Your task to perform on an android device: change the clock display to digital Image 0: 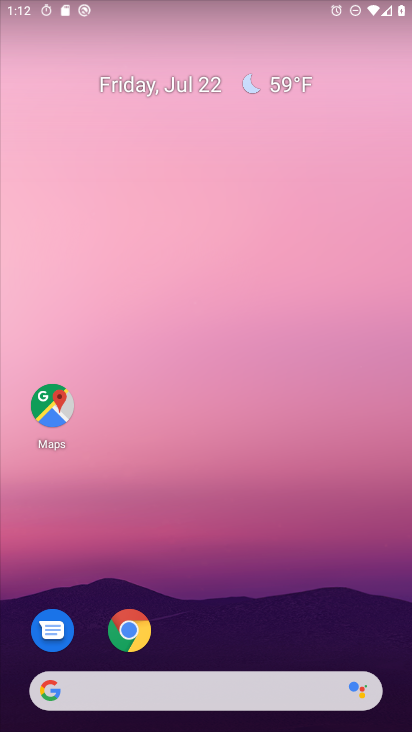
Step 0: press home button
Your task to perform on an android device: change the clock display to digital Image 1: 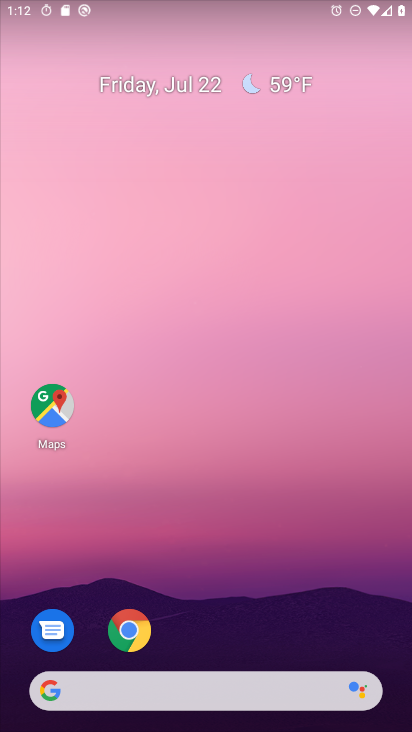
Step 1: drag from (250, 644) to (275, 34)
Your task to perform on an android device: change the clock display to digital Image 2: 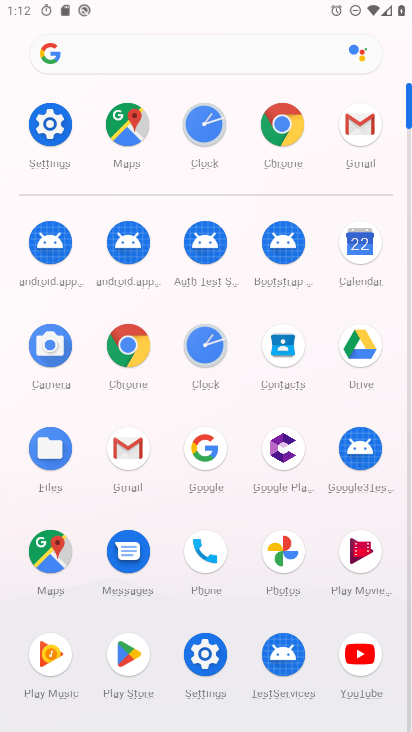
Step 2: click (206, 136)
Your task to perform on an android device: change the clock display to digital Image 3: 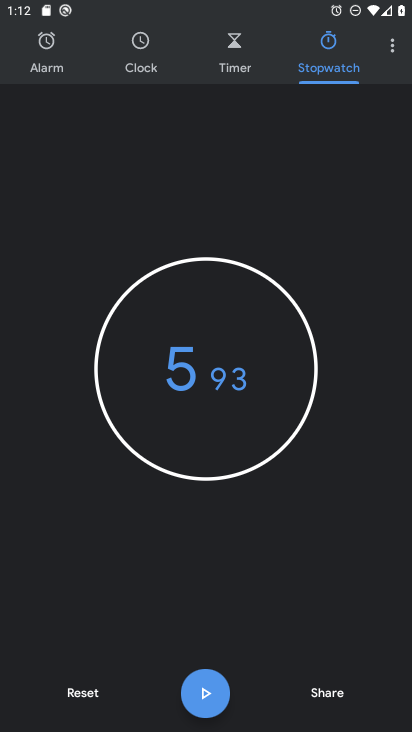
Step 3: click (397, 47)
Your task to perform on an android device: change the clock display to digital Image 4: 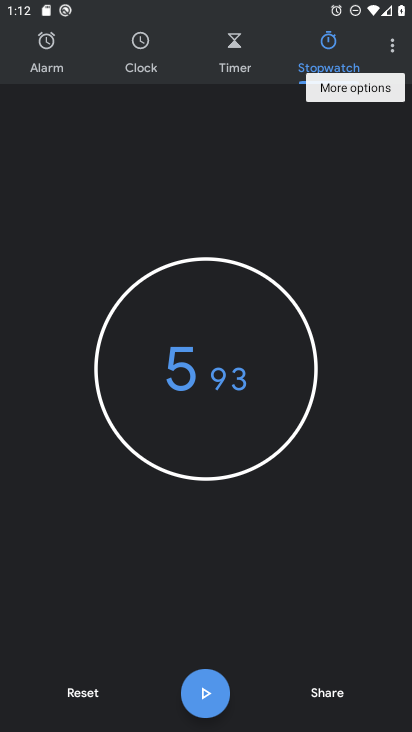
Step 4: click (397, 47)
Your task to perform on an android device: change the clock display to digital Image 5: 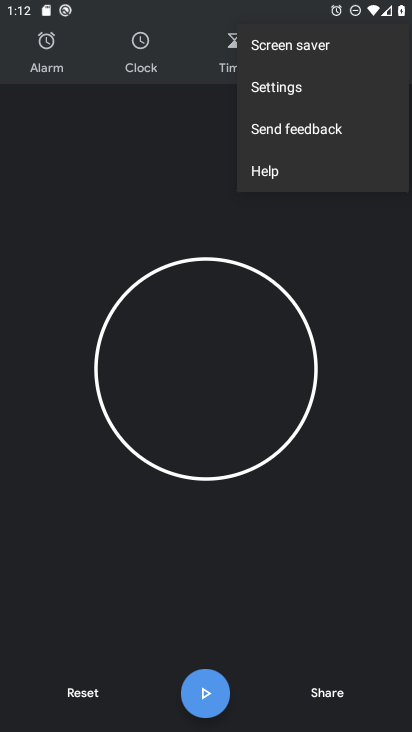
Step 5: click (273, 85)
Your task to perform on an android device: change the clock display to digital Image 6: 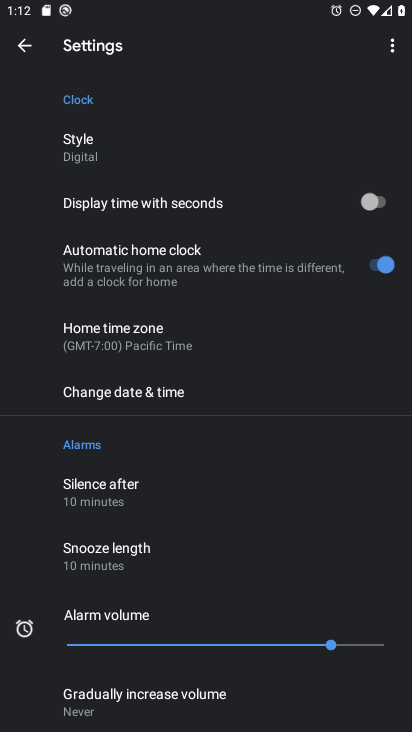
Step 6: click (77, 151)
Your task to perform on an android device: change the clock display to digital Image 7: 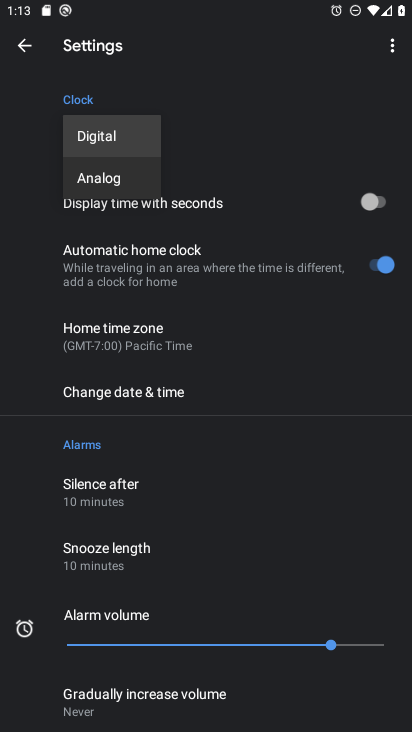
Step 7: click (102, 137)
Your task to perform on an android device: change the clock display to digital Image 8: 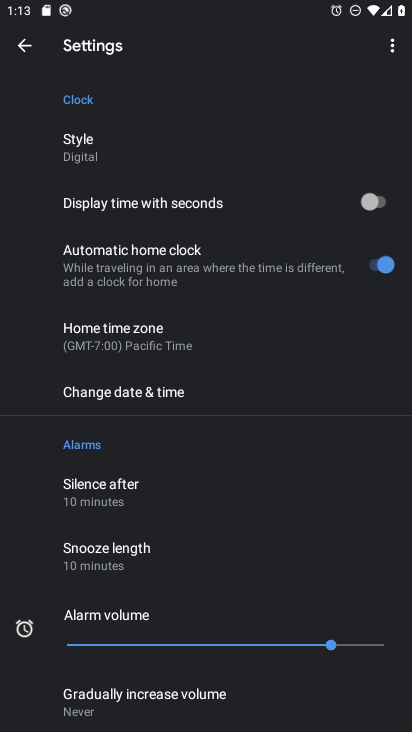
Step 8: task complete